Your task to perform on an android device: Open Google Image 0: 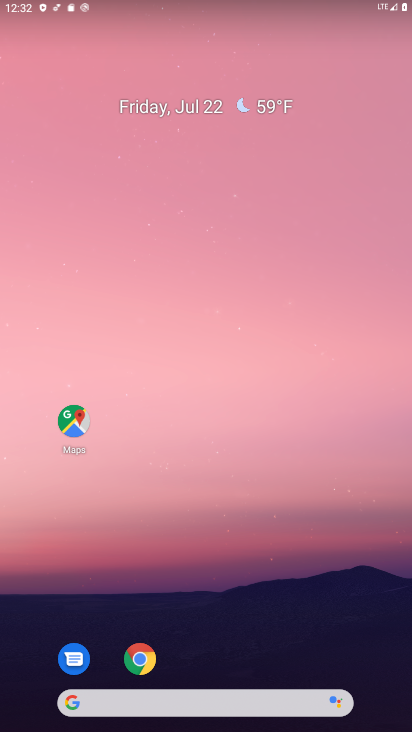
Step 0: drag from (223, 646) to (253, 314)
Your task to perform on an android device: Open Google Image 1: 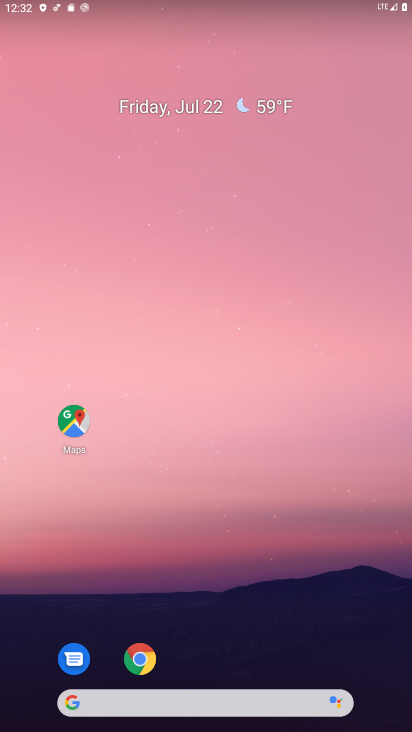
Step 1: drag from (193, 644) to (189, 142)
Your task to perform on an android device: Open Google Image 2: 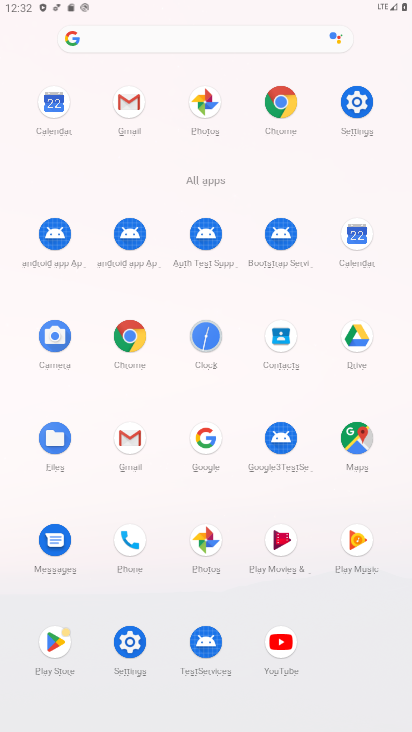
Step 2: click (201, 452)
Your task to perform on an android device: Open Google Image 3: 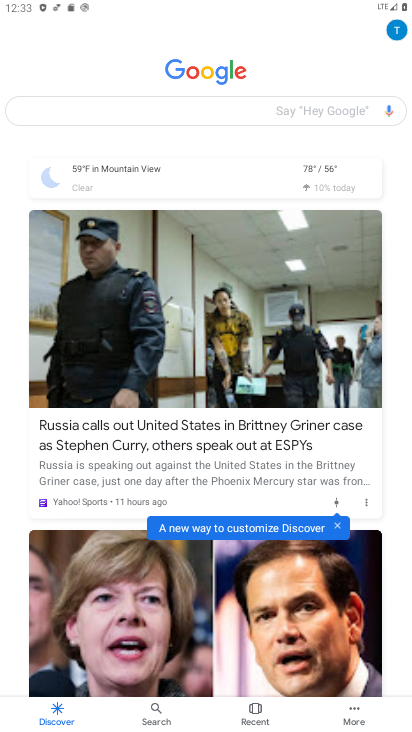
Step 3: task complete